Your task to perform on an android device: Search for the new steph curry shoes on Amazon. Image 0: 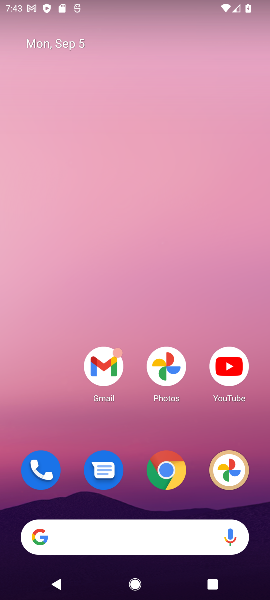
Step 0: drag from (174, 503) to (120, 47)
Your task to perform on an android device: Search for the new steph curry shoes on Amazon. Image 1: 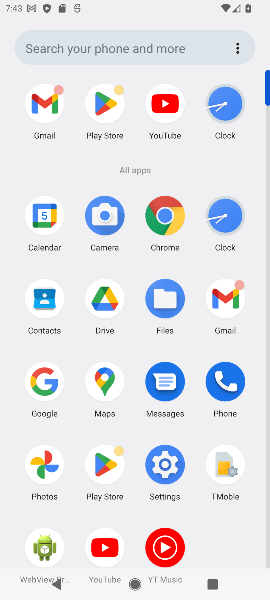
Step 1: click (166, 201)
Your task to perform on an android device: Search for the new steph curry shoes on Amazon. Image 2: 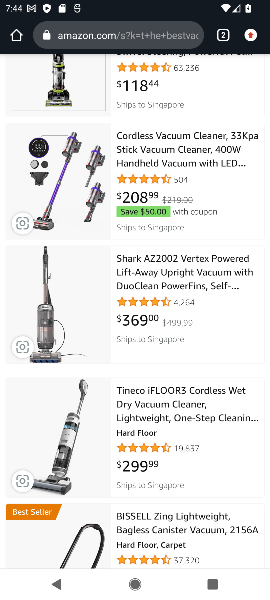
Step 2: click (226, 35)
Your task to perform on an android device: Search for the new steph curry shoes on Amazon. Image 3: 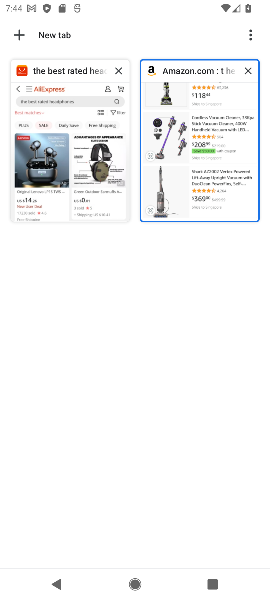
Step 3: click (112, 70)
Your task to perform on an android device: Search for the new steph curry shoes on Amazon. Image 4: 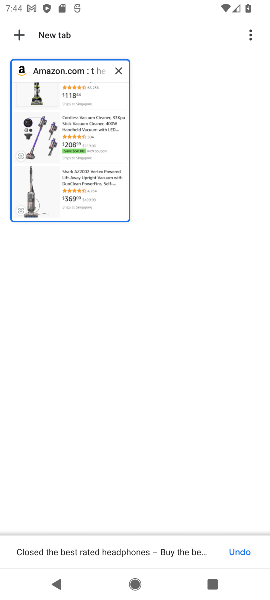
Step 4: click (161, 148)
Your task to perform on an android device: Search for the new steph curry shoes on Amazon. Image 5: 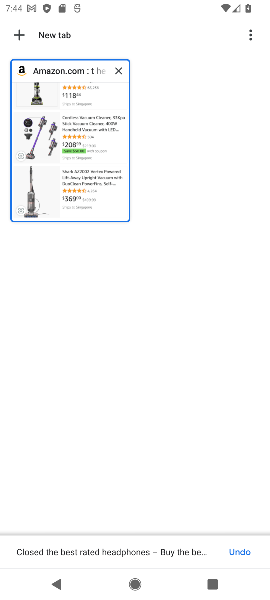
Step 5: click (116, 156)
Your task to perform on an android device: Search for the new steph curry shoes on Amazon. Image 6: 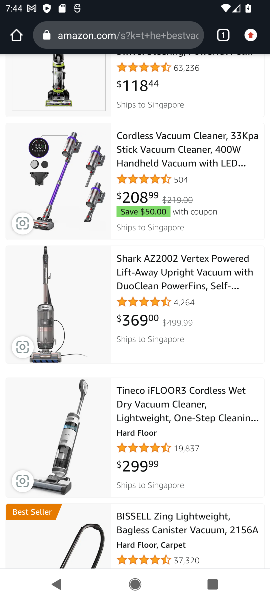
Step 6: press back button
Your task to perform on an android device: Search for the new steph curry shoes on Amazon. Image 7: 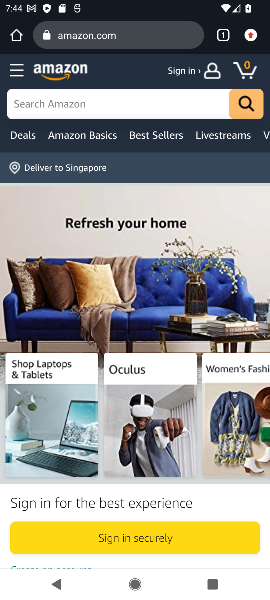
Step 7: click (55, 92)
Your task to perform on an android device: Search for the new steph curry shoes on Amazon. Image 8: 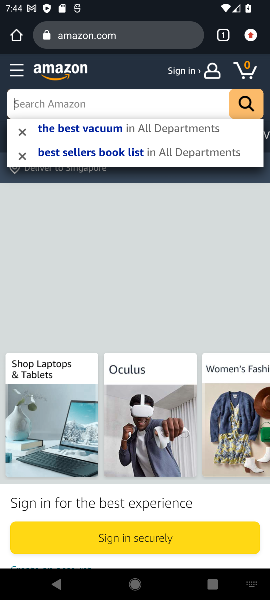
Step 8: type "the new steph curry shoes"
Your task to perform on an android device: Search for the new steph curry shoes on Amazon. Image 9: 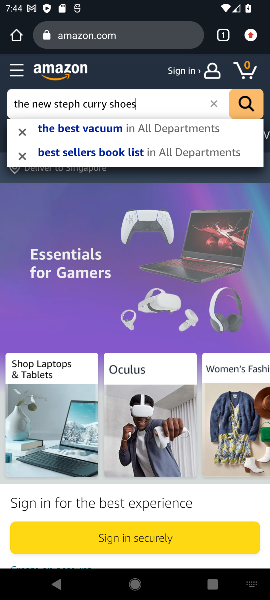
Step 9: type ""
Your task to perform on an android device: Search for the new steph curry shoes on Amazon. Image 10: 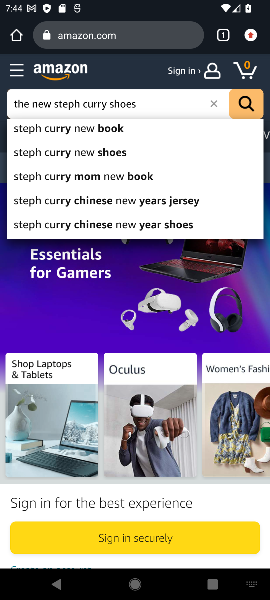
Step 10: click (238, 99)
Your task to perform on an android device: Search for the new steph curry shoes on Amazon. Image 11: 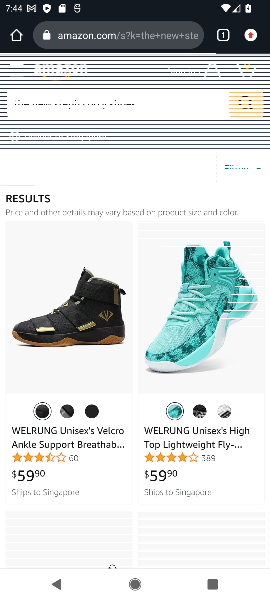
Step 11: task complete